Your task to perform on an android device: check google app version Image 0: 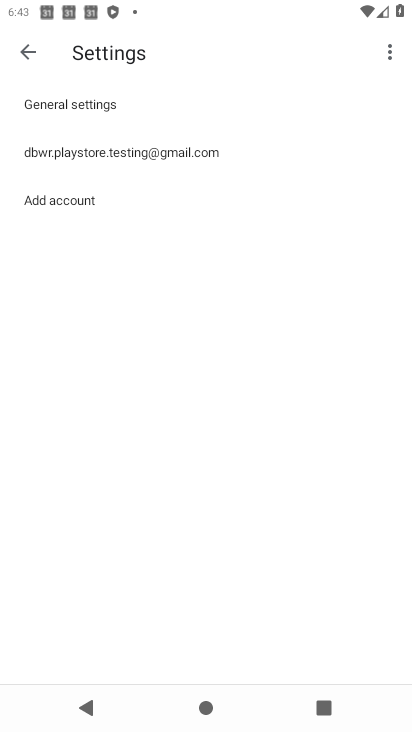
Step 0: press home button
Your task to perform on an android device: check google app version Image 1: 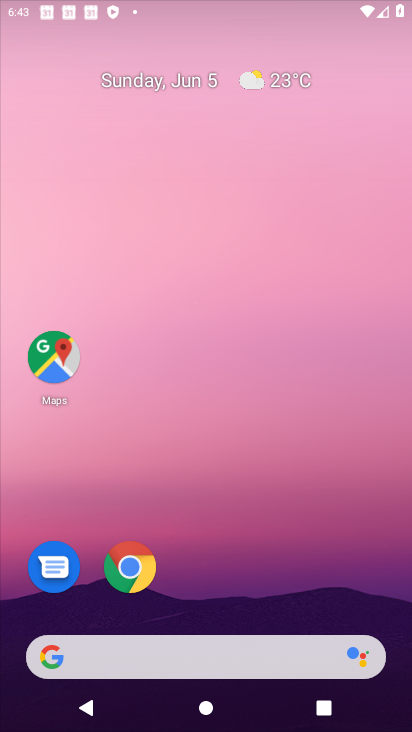
Step 1: drag from (400, 655) to (173, 6)
Your task to perform on an android device: check google app version Image 2: 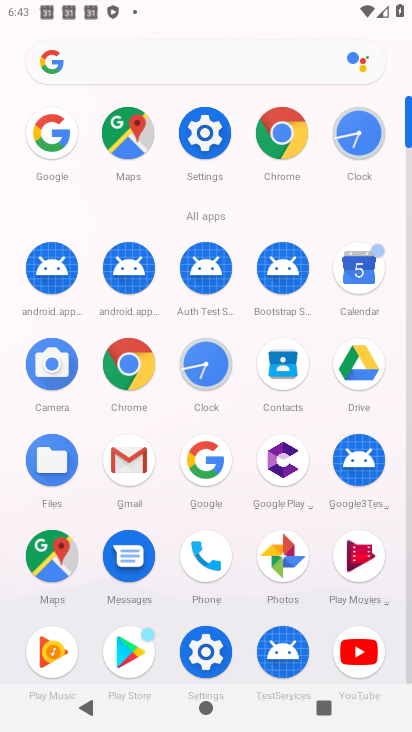
Step 2: click (203, 471)
Your task to perform on an android device: check google app version Image 3: 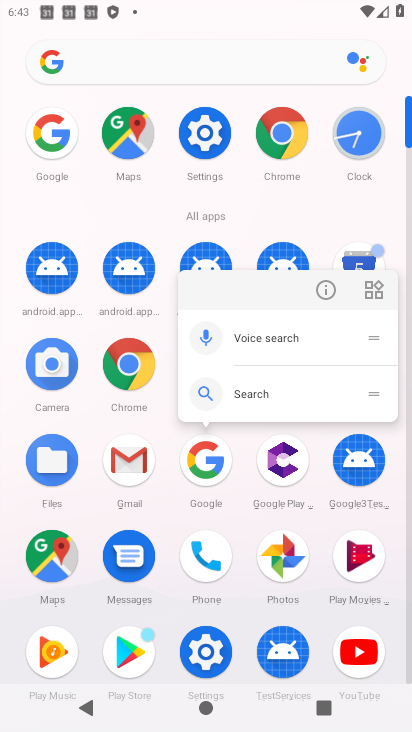
Step 3: click (318, 292)
Your task to perform on an android device: check google app version Image 4: 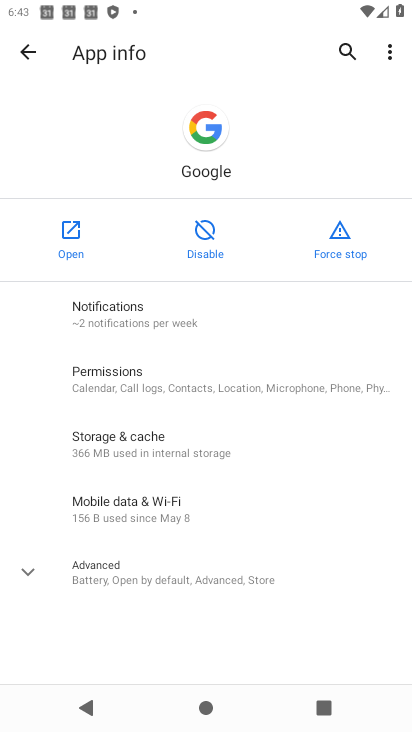
Step 4: click (129, 569)
Your task to perform on an android device: check google app version Image 5: 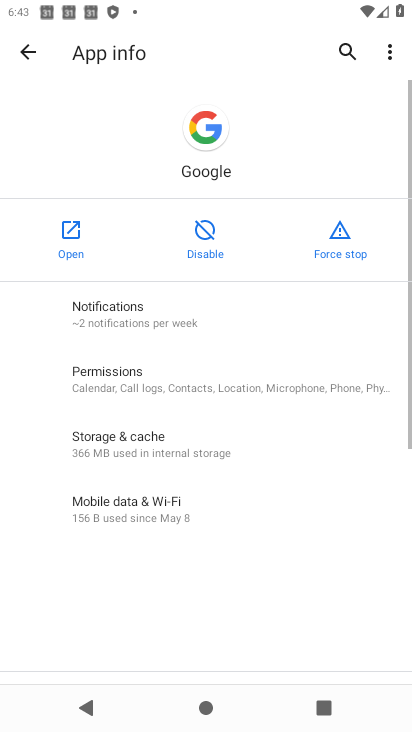
Step 5: task complete